Your task to perform on an android device: Check the news Image 0: 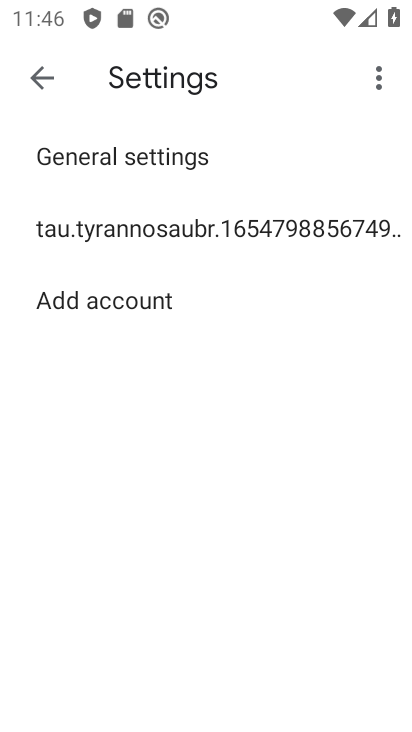
Step 0: press home button
Your task to perform on an android device: Check the news Image 1: 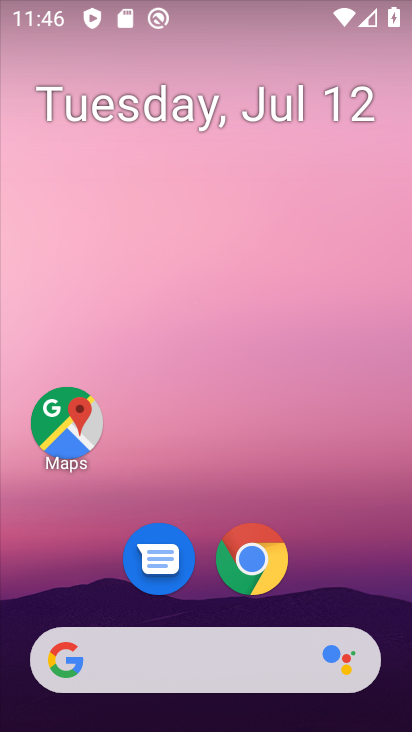
Step 1: task complete